Your task to perform on an android device: star an email in the gmail app Image 0: 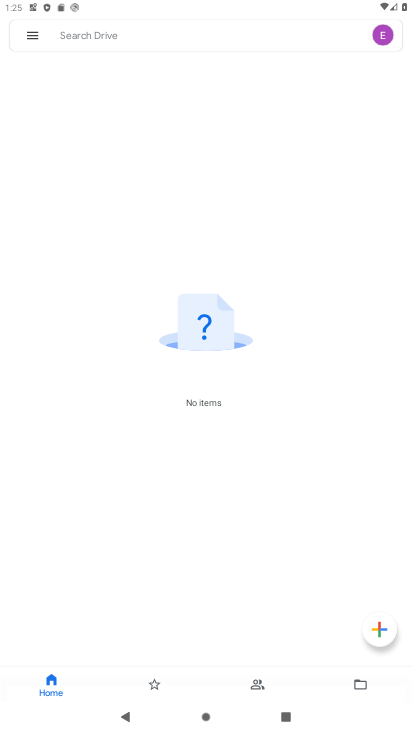
Step 0: press home button
Your task to perform on an android device: star an email in the gmail app Image 1: 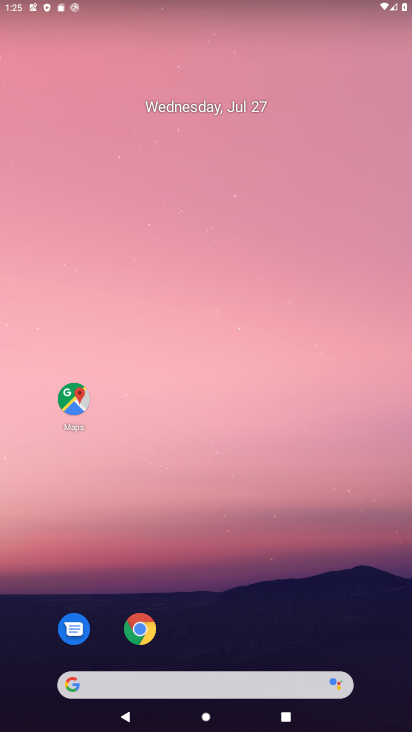
Step 1: drag from (223, 615) to (190, 95)
Your task to perform on an android device: star an email in the gmail app Image 2: 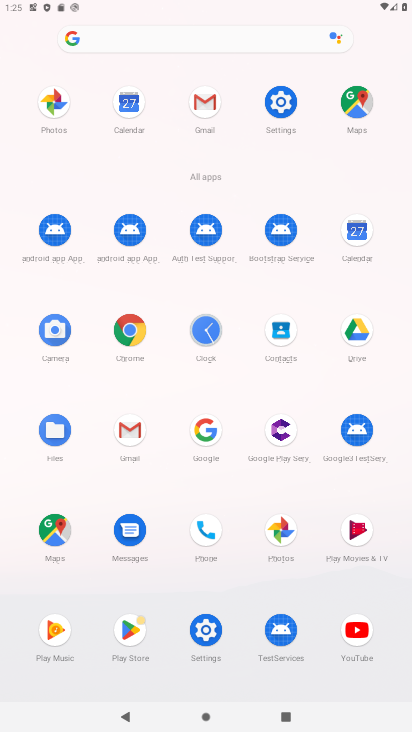
Step 2: click (204, 118)
Your task to perform on an android device: star an email in the gmail app Image 3: 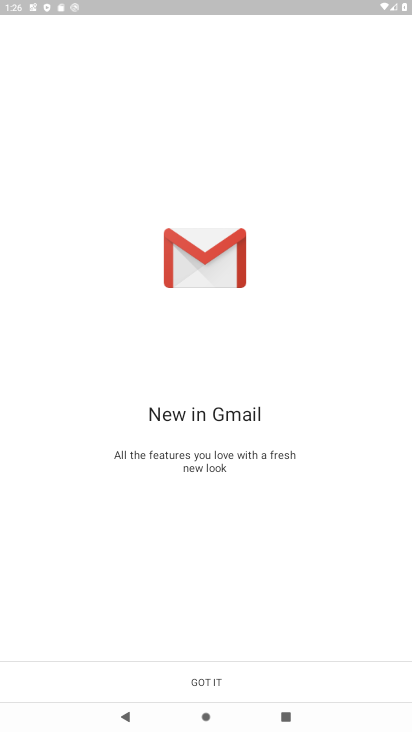
Step 3: click (217, 677)
Your task to perform on an android device: star an email in the gmail app Image 4: 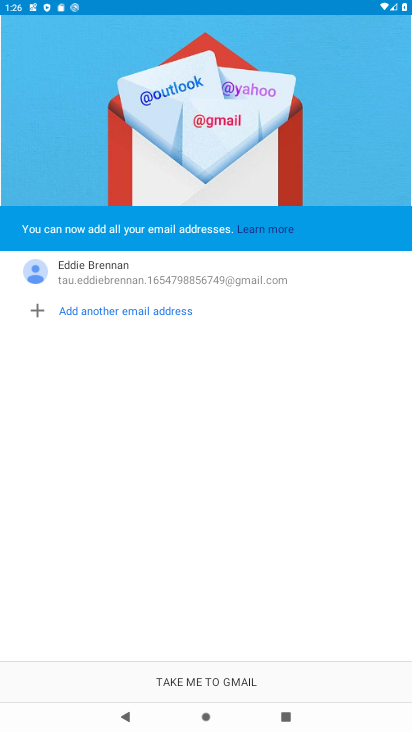
Step 4: click (214, 680)
Your task to perform on an android device: star an email in the gmail app Image 5: 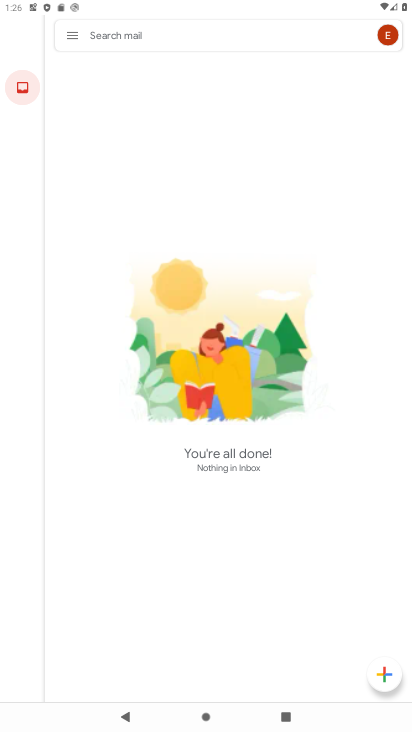
Step 5: click (66, 37)
Your task to perform on an android device: star an email in the gmail app Image 6: 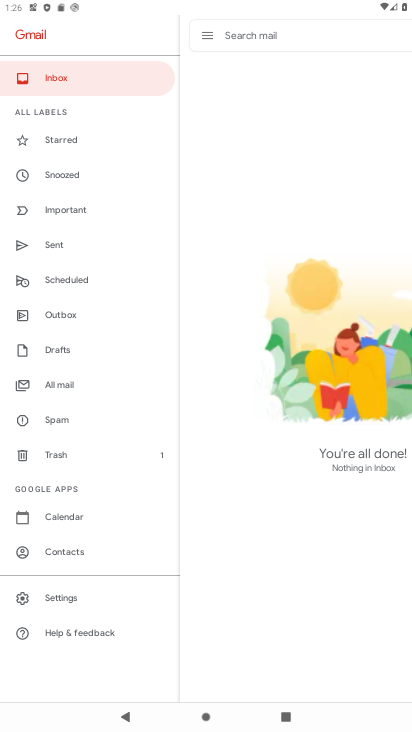
Step 6: click (65, 383)
Your task to perform on an android device: star an email in the gmail app Image 7: 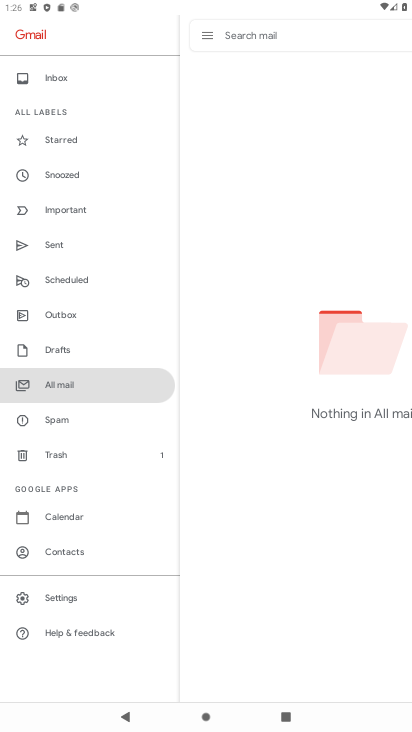
Step 7: task complete